Your task to perform on an android device: What is the speed of a skateboard? Image 0: 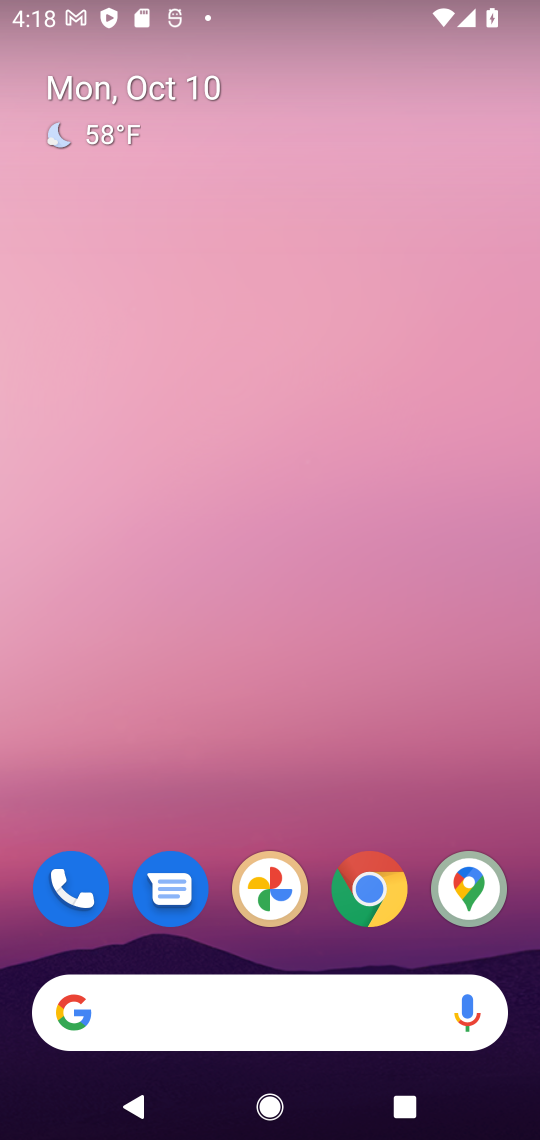
Step 0: click (374, 891)
Your task to perform on an android device: What is the speed of a skateboard? Image 1: 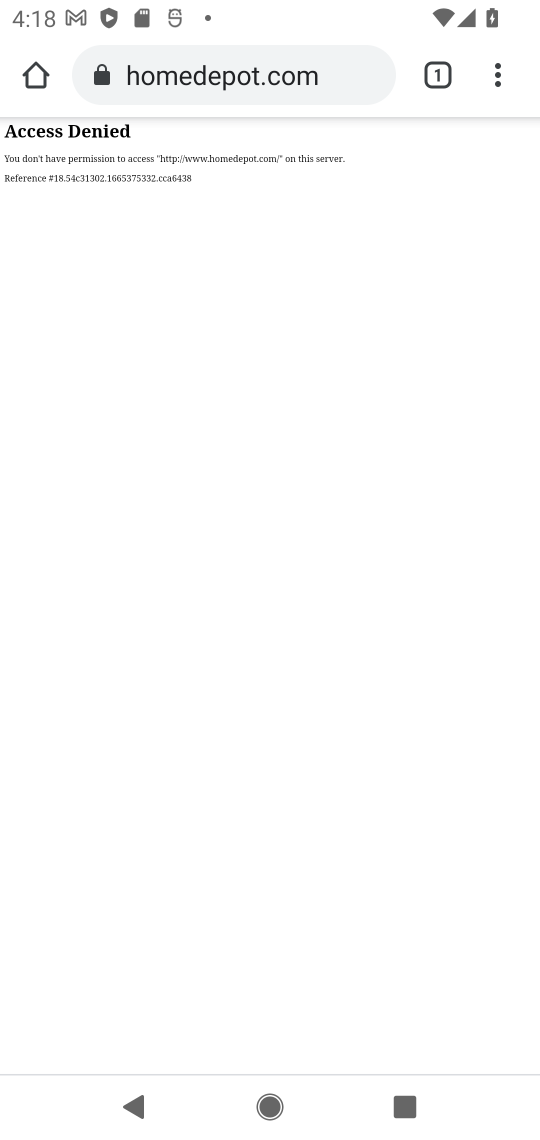
Step 1: click (341, 73)
Your task to perform on an android device: What is the speed of a skateboard? Image 2: 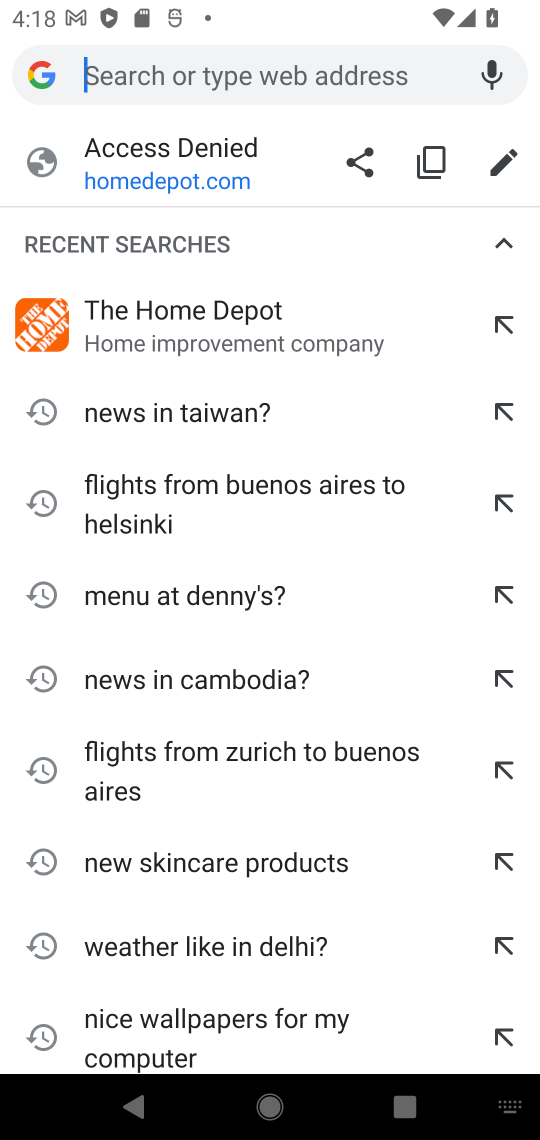
Step 2: type "What is the speed of a skateboard?"
Your task to perform on an android device: What is the speed of a skateboard? Image 3: 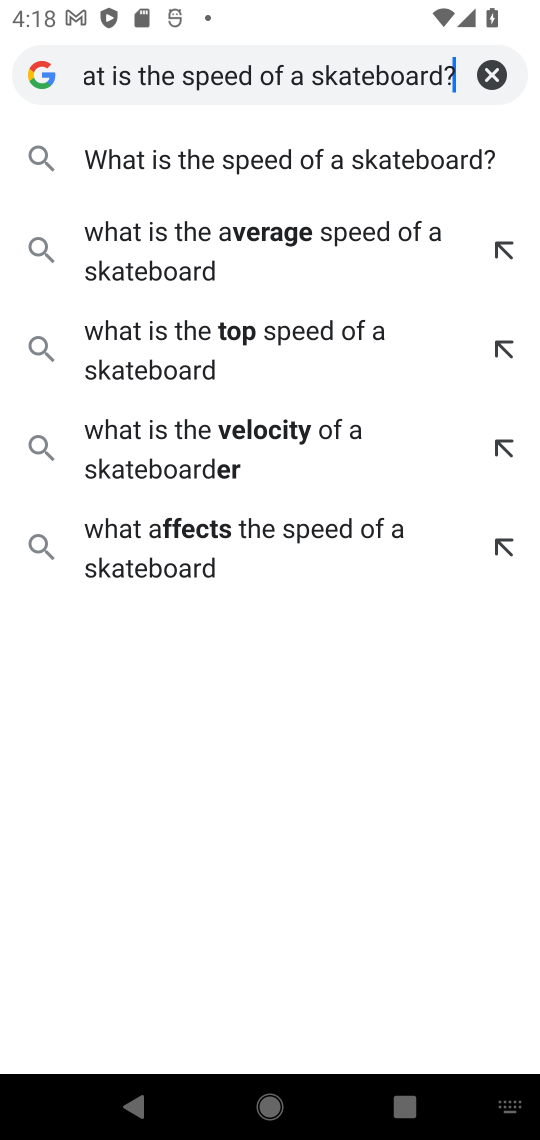
Step 3: click (234, 153)
Your task to perform on an android device: What is the speed of a skateboard? Image 4: 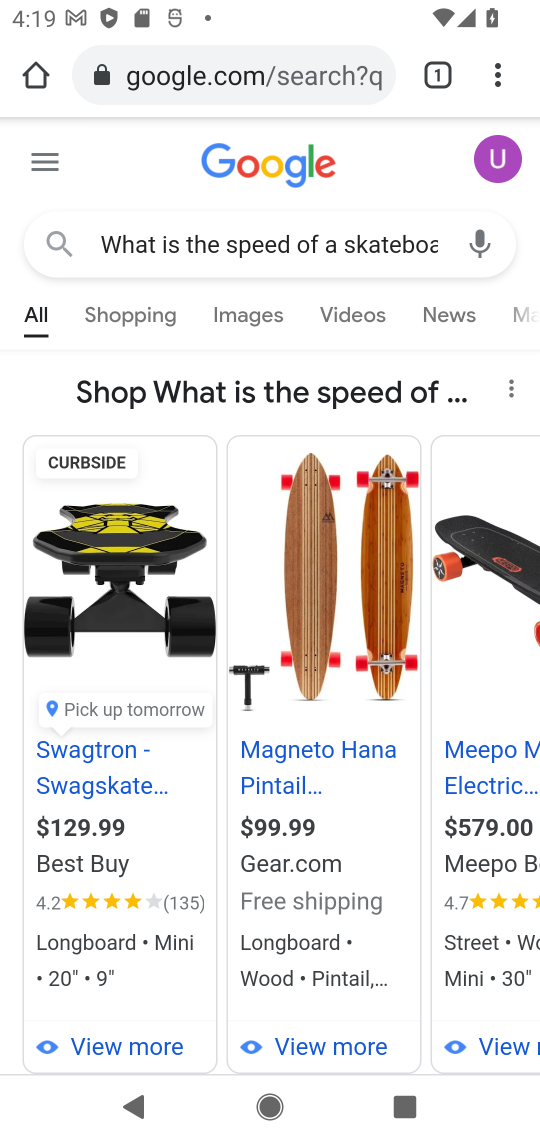
Step 4: drag from (223, 992) to (274, 217)
Your task to perform on an android device: What is the speed of a skateboard? Image 5: 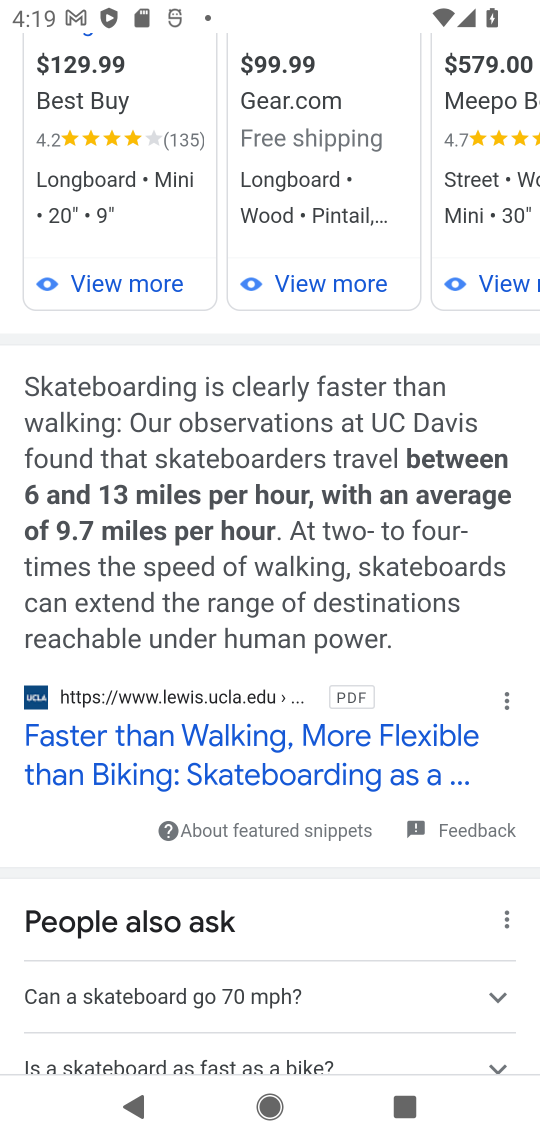
Step 5: drag from (198, 387) to (257, 217)
Your task to perform on an android device: What is the speed of a skateboard? Image 6: 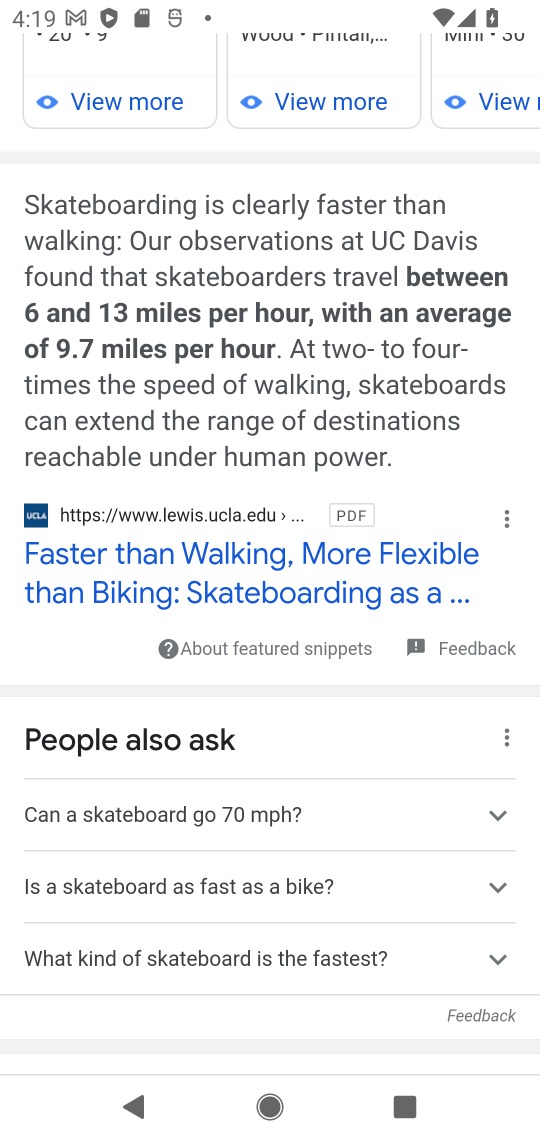
Step 6: drag from (234, 731) to (251, 221)
Your task to perform on an android device: What is the speed of a skateboard? Image 7: 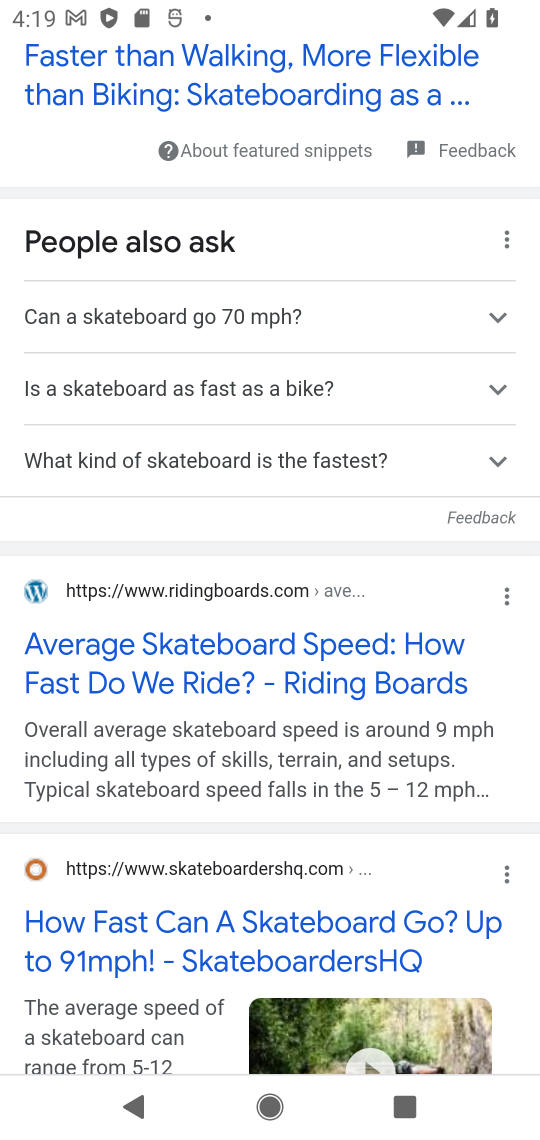
Step 7: click (144, 647)
Your task to perform on an android device: What is the speed of a skateboard? Image 8: 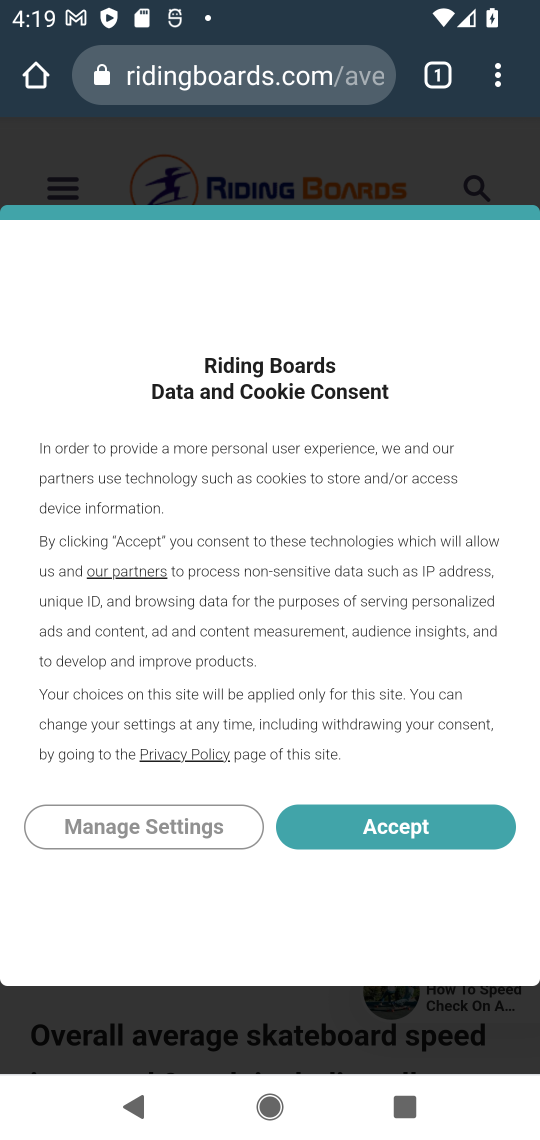
Step 8: click (370, 826)
Your task to perform on an android device: What is the speed of a skateboard? Image 9: 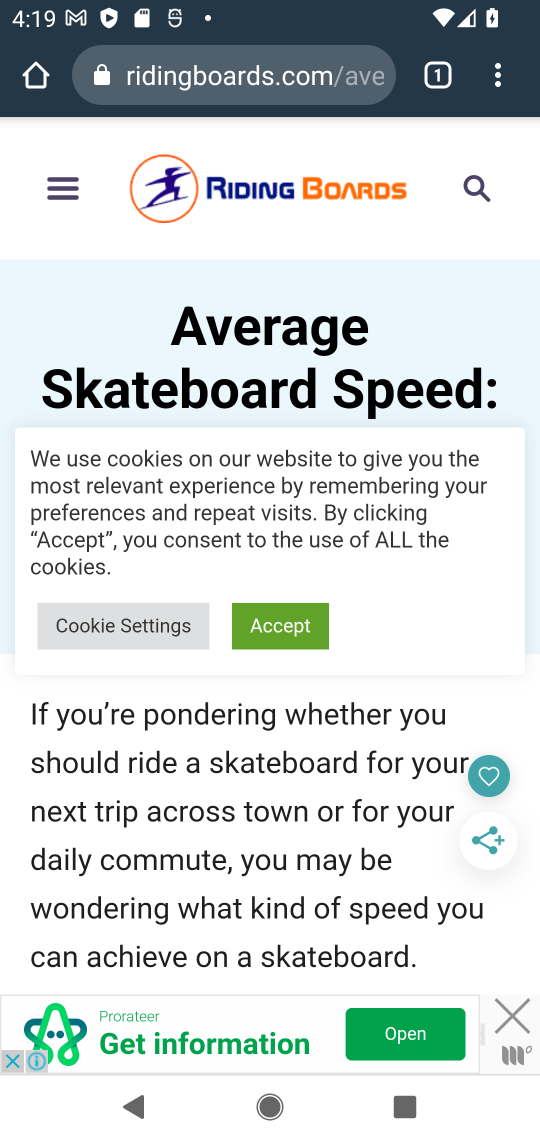
Step 9: click (509, 1009)
Your task to perform on an android device: What is the speed of a skateboard? Image 10: 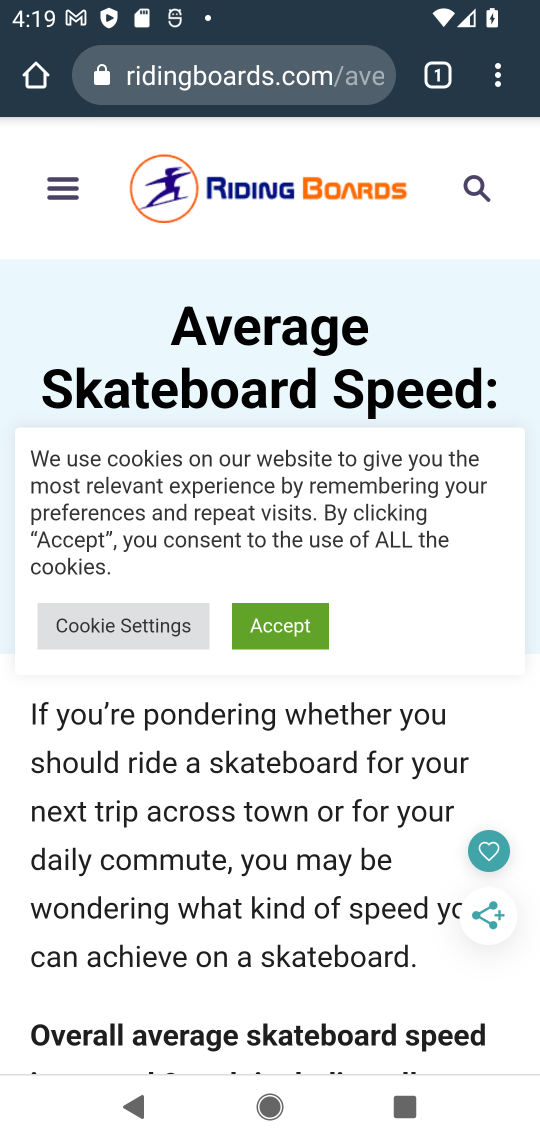
Step 10: click (268, 621)
Your task to perform on an android device: What is the speed of a skateboard? Image 11: 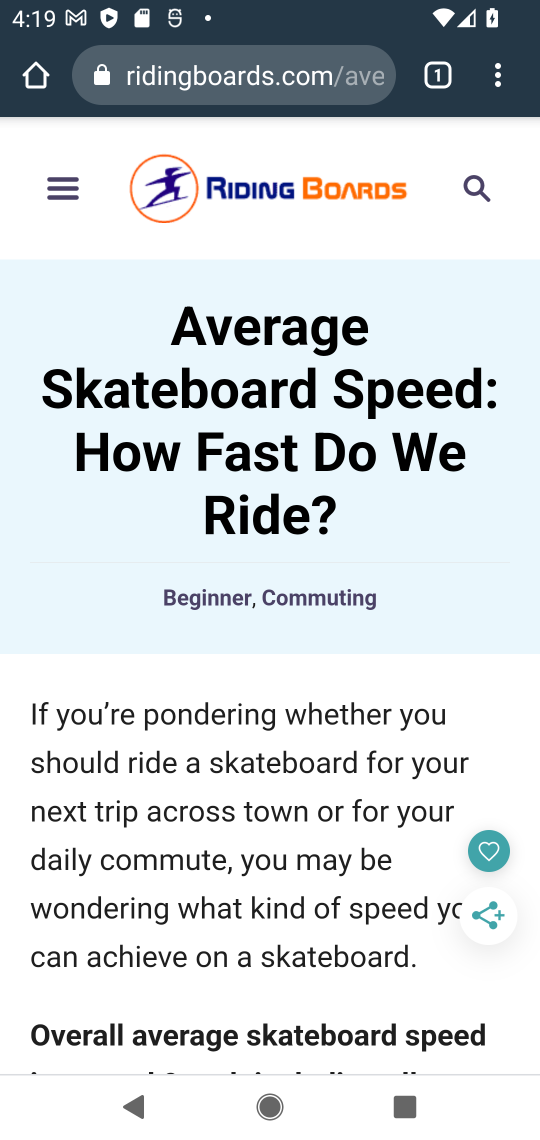
Step 11: task complete